Your task to perform on an android device: check google app version Image 0: 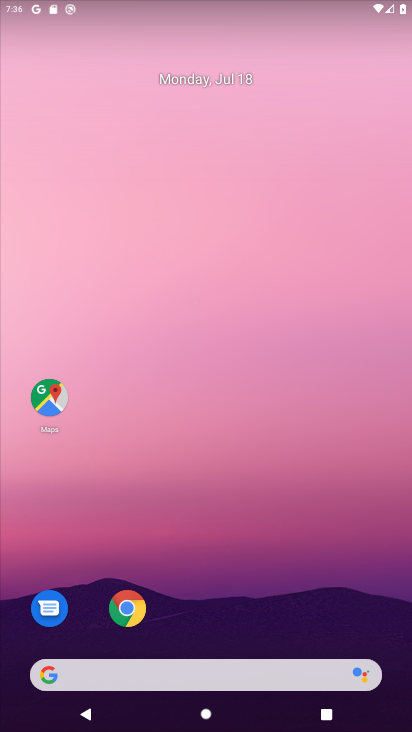
Step 0: drag from (199, 658) to (171, 167)
Your task to perform on an android device: check google app version Image 1: 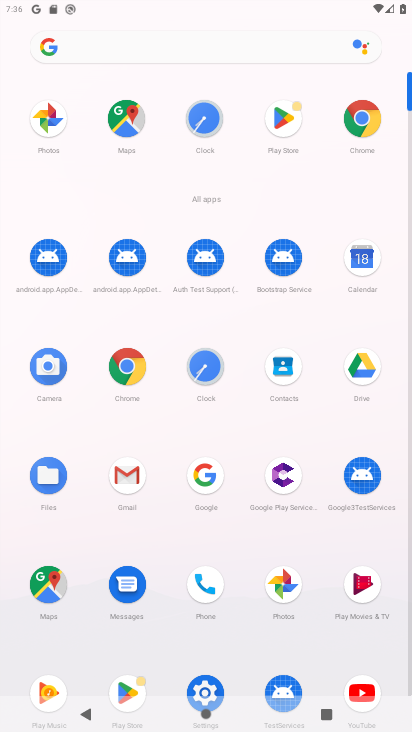
Step 1: click (212, 487)
Your task to perform on an android device: check google app version Image 2: 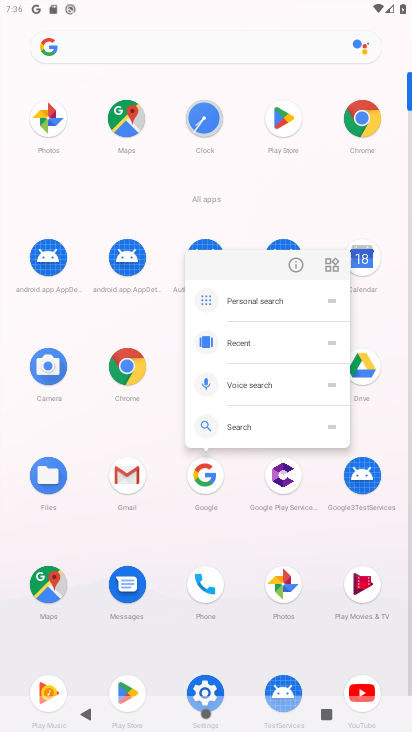
Step 2: click (299, 259)
Your task to perform on an android device: check google app version Image 3: 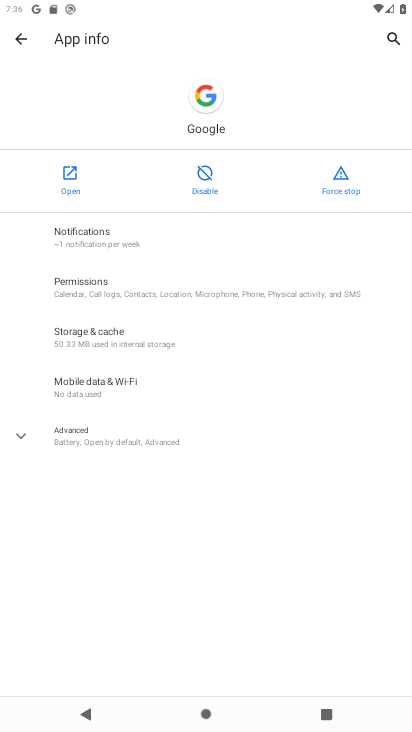
Step 3: click (164, 428)
Your task to perform on an android device: check google app version Image 4: 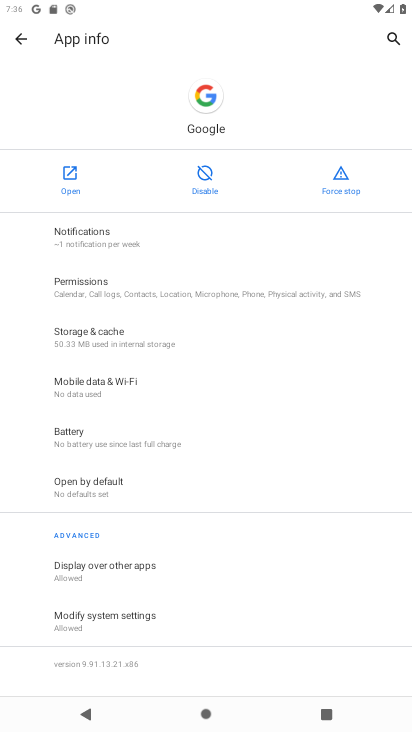
Step 4: task complete